Your task to perform on an android device: turn on javascript in the chrome app Image 0: 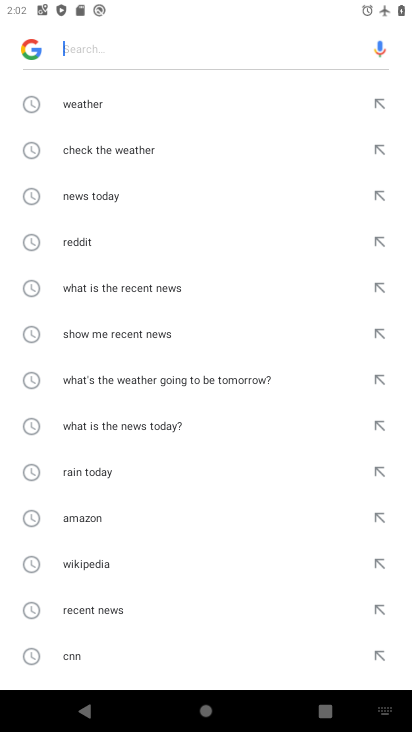
Step 0: press home button
Your task to perform on an android device: turn on javascript in the chrome app Image 1: 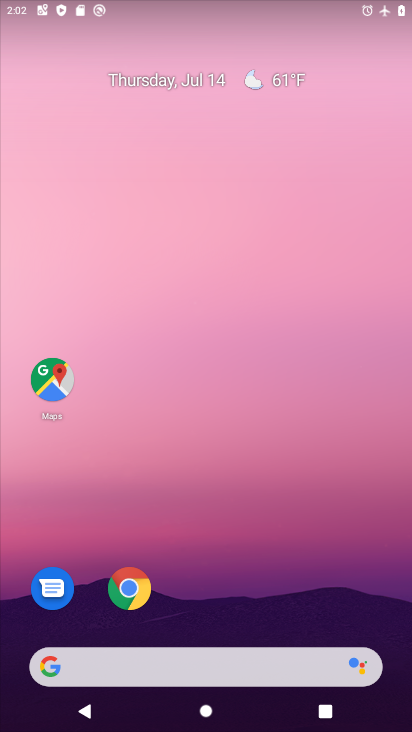
Step 1: drag from (240, 624) to (265, 131)
Your task to perform on an android device: turn on javascript in the chrome app Image 2: 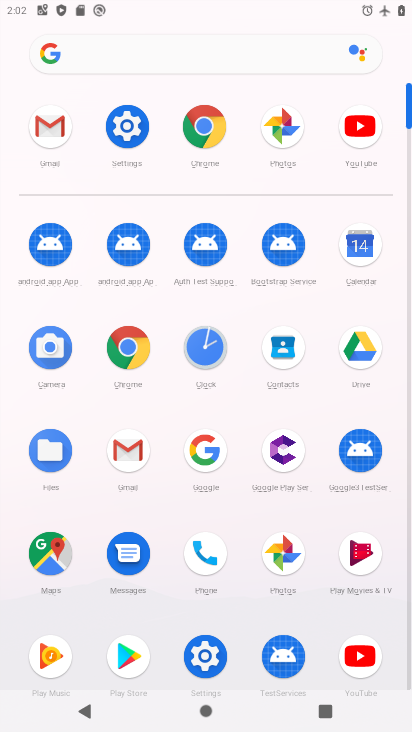
Step 2: click (126, 340)
Your task to perform on an android device: turn on javascript in the chrome app Image 3: 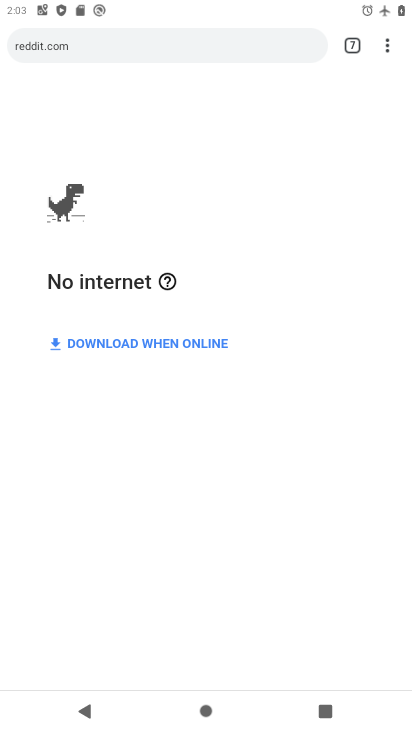
Step 3: click (385, 33)
Your task to perform on an android device: turn on javascript in the chrome app Image 4: 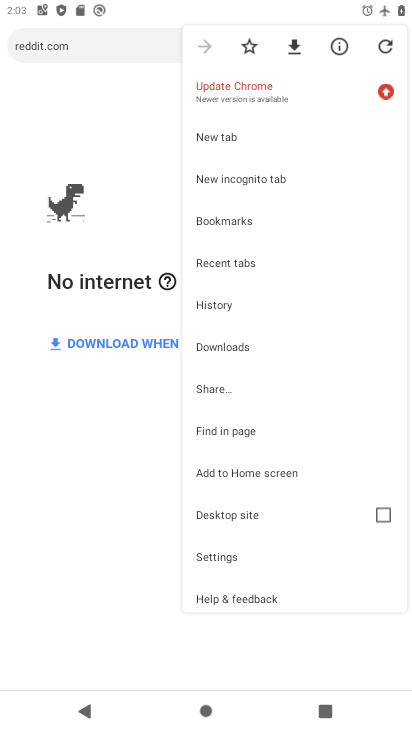
Step 4: click (230, 549)
Your task to perform on an android device: turn on javascript in the chrome app Image 5: 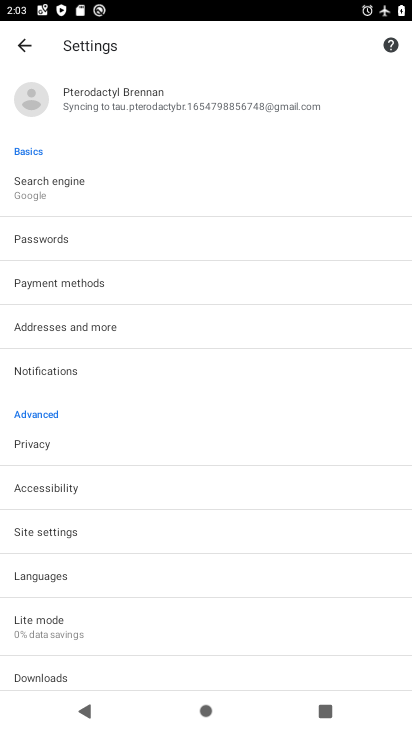
Step 5: click (52, 527)
Your task to perform on an android device: turn on javascript in the chrome app Image 6: 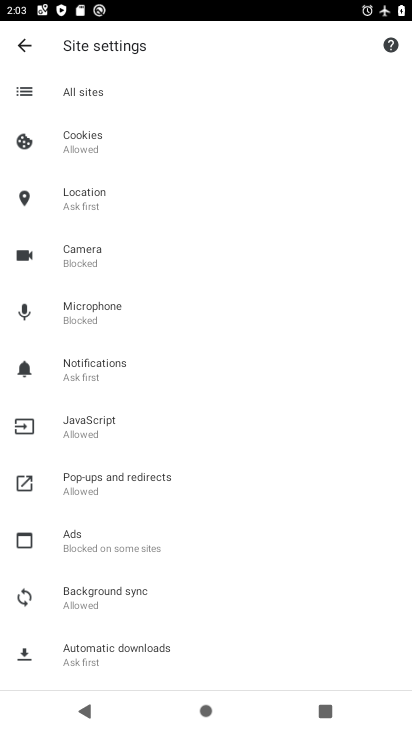
Step 6: click (116, 413)
Your task to perform on an android device: turn on javascript in the chrome app Image 7: 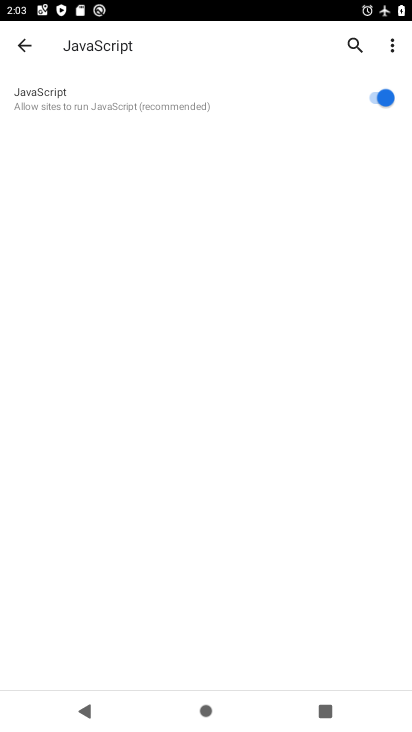
Step 7: task complete